Your task to perform on an android device: empty trash in google photos Image 0: 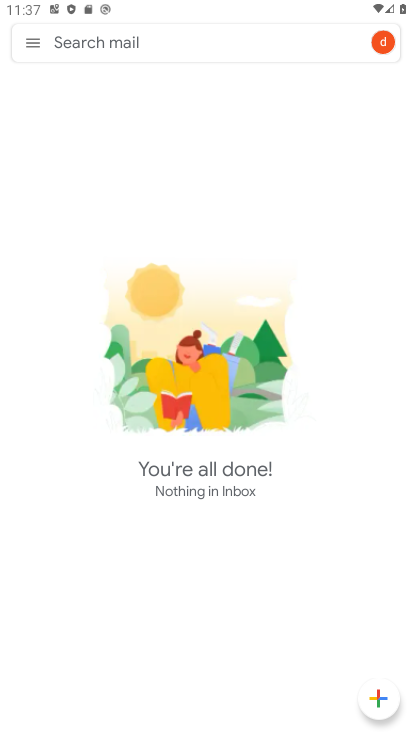
Step 0: press home button
Your task to perform on an android device: empty trash in google photos Image 1: 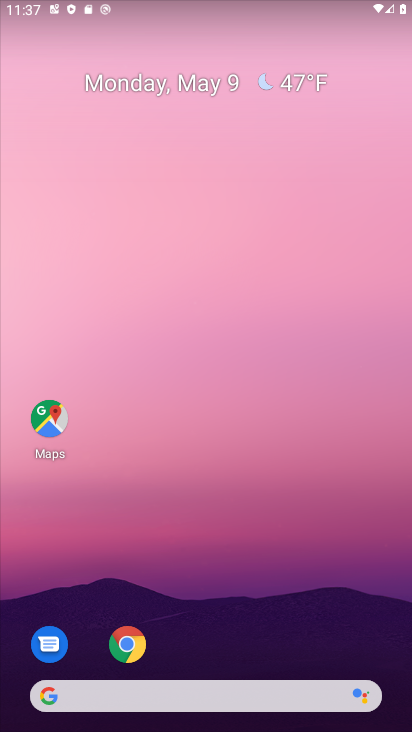
Step 1: drag from (19, 702) to (286, 190)
Your task to perform on an android device: empty trash in google photos Image 2: 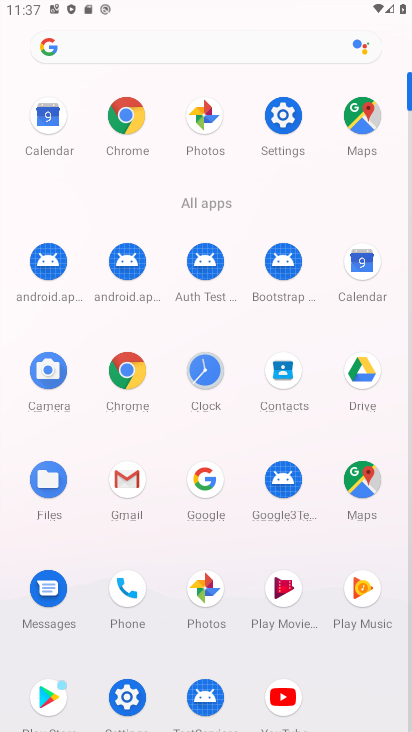
Step 2: click (197, 121)
Your task to perform on an android device: empty trash in google photos Image 3: 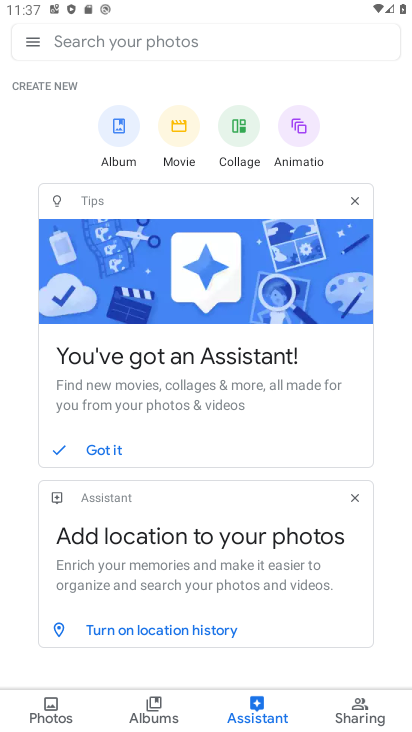
Step 3: click (123, 710)
Your task to perform on an android device: empty trash in google photos Image 4: 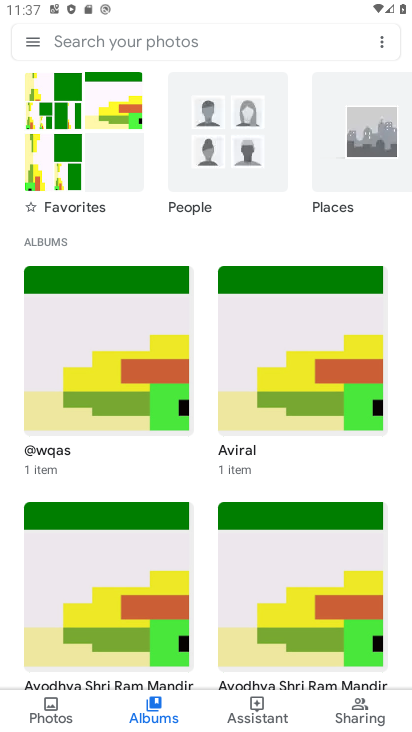
Step 4: click (51, 710)
Your task to perform on an android device: empty trash in google photos Image 5: 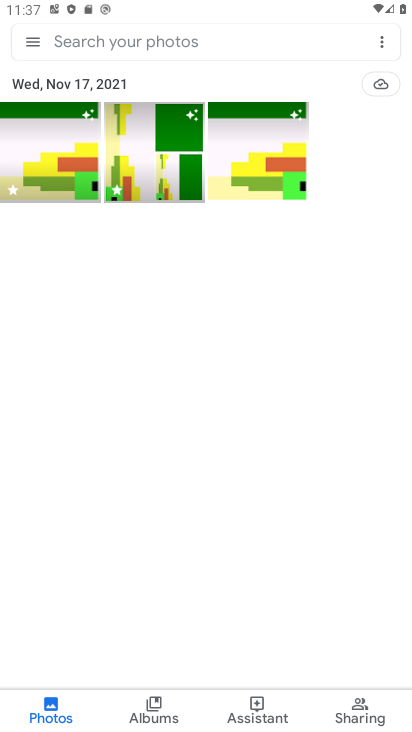
Step 5: click (31, 41)
Your task to perform on an android device: empty trash in google photos Image 6: 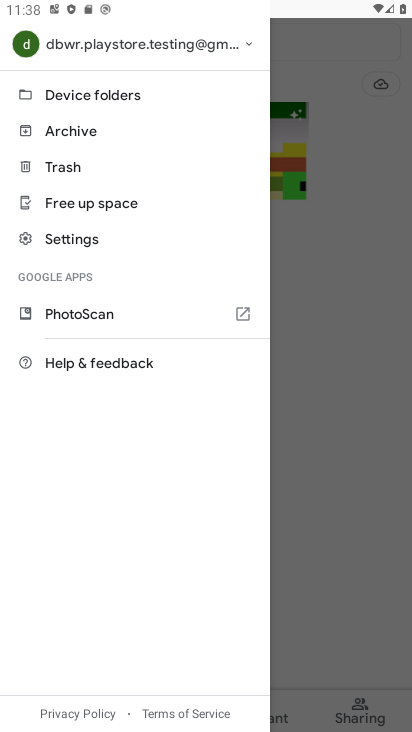
Step 6: click (31, 158)
Your task to perform on an android device: empty trash in google photos Image 7: 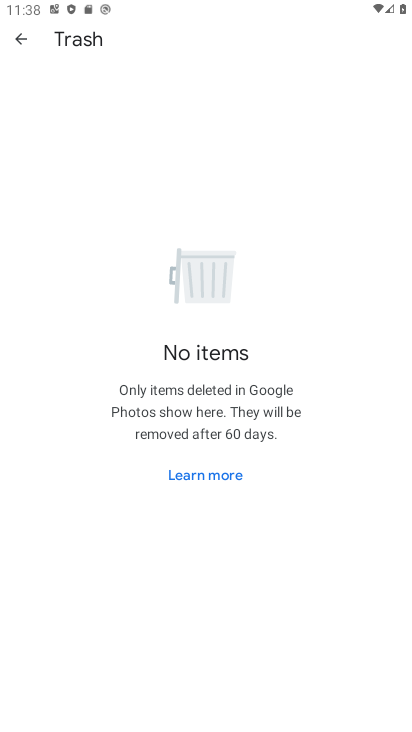
Step 7: task complete